Your task to perform on an android device: Is it going to rain today? Image 0: 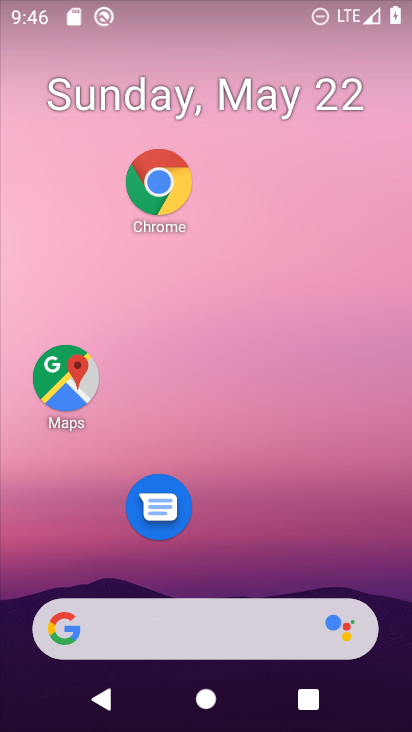
Step 0: click (166, 619)
Your task to perform on an android device: Is it going to rain today? Image 1: 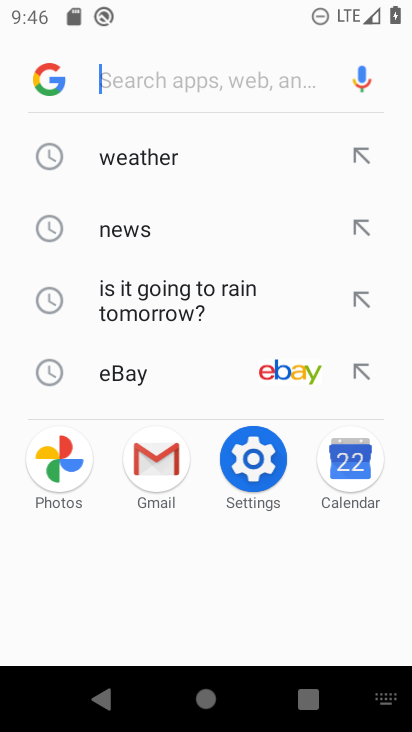
Step 1: type "Is it going to rain today?"
Your task to perform on an android device: Is it going to rain today? Image 2: 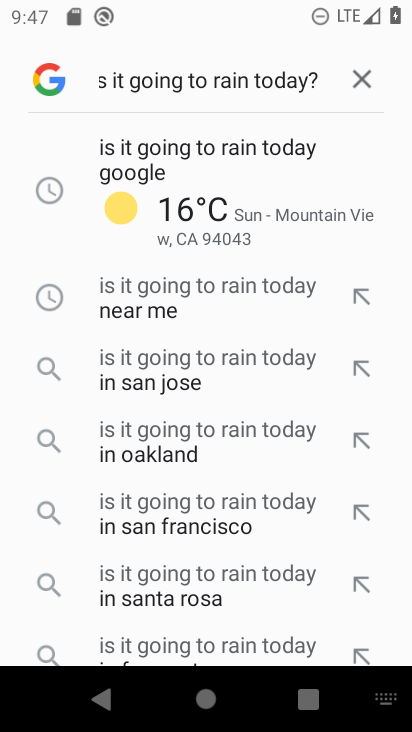
Step 2: click (180, 148)
Your task to perform on an android device: Is it going to rain today? Image 3: 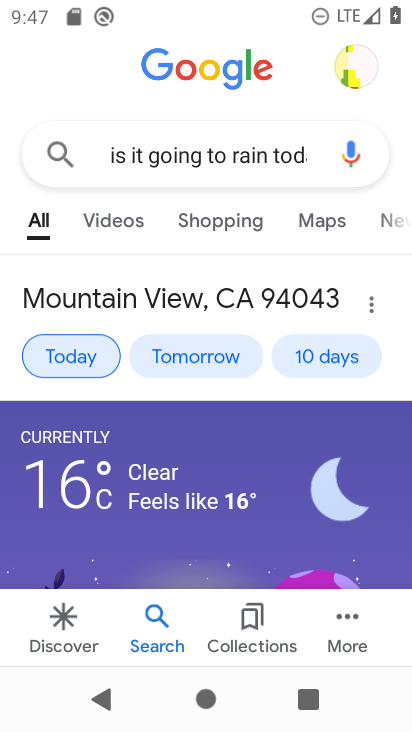
Step 3: task complete